Your task to perform on an android device: turn pop-ups off in chrome Image 0: 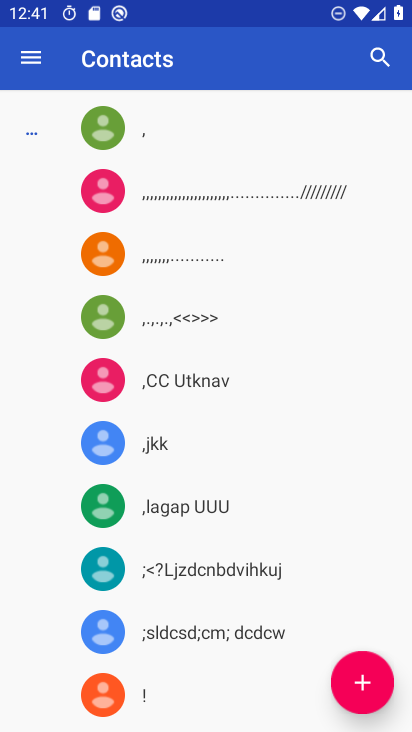
Step 0: press home button
Your task to perform on an android device: turn pop-ups off in chrome Image 1: 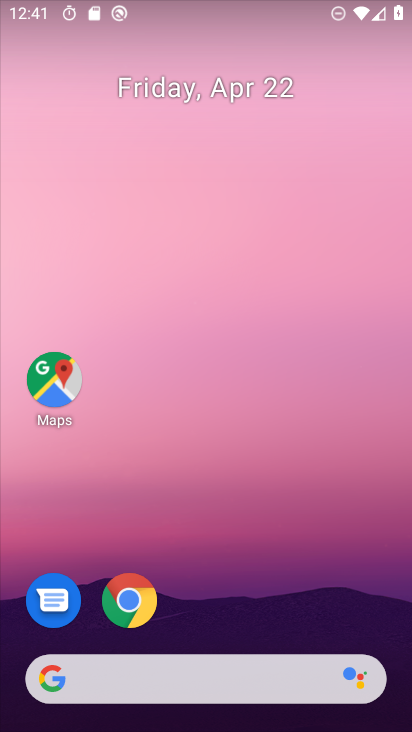
Step 1: click (129, 596)
Your task to perform on an android device: turn pop-ups off in chrome Image 2: 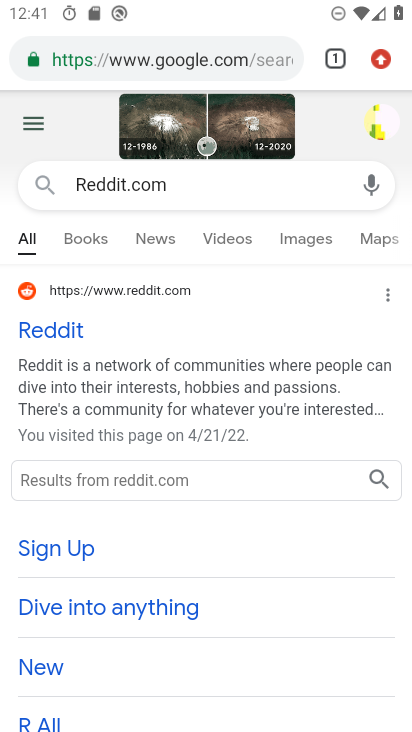
Step 2: click (385, 60)
Your task to perform on an android device: turn pop-ups off in chrome Image 3: 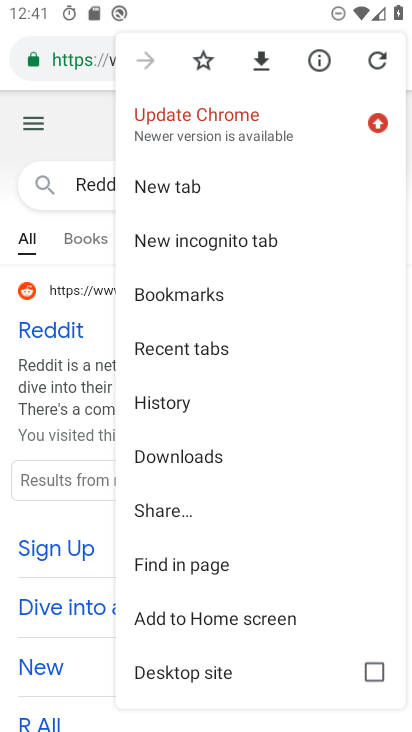
Step 3: drag from (234, 427) to (250, 313)
Your task to perform on an android device: turn pop-ups off in chrome Image 4: 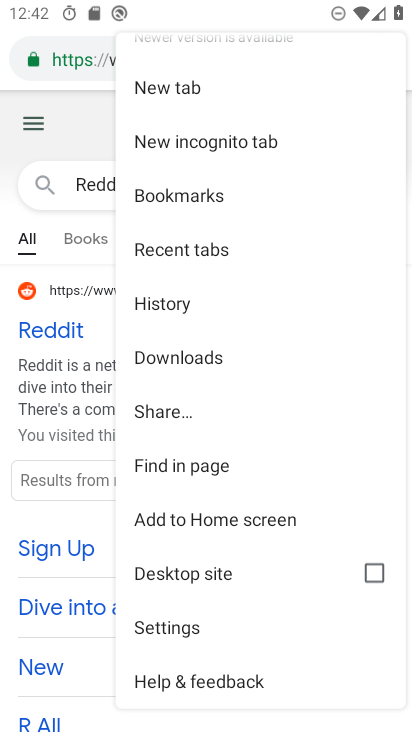
Step 4: drag from (248, 444) to (283, 357)
Your task to perform on an android device: turn pop-ups off in chrome Image 5: 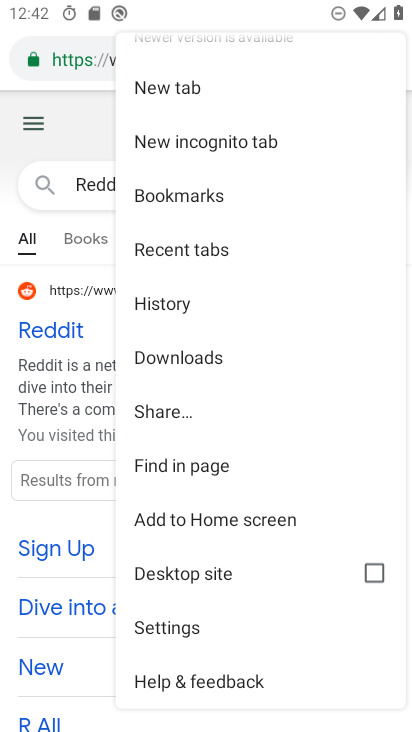
Step 5: click (179, 629)
Your task to perform on an android device: turn pop-ups off in chrome Image 6: 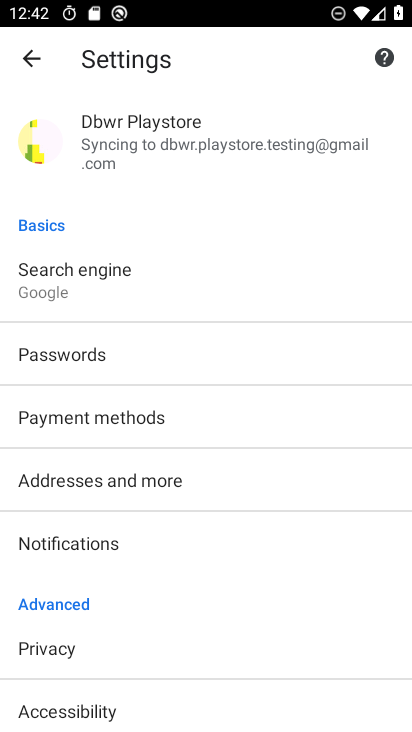
Step 6: drag from (176, 608) to (199, 463)
Your task to perform on an android device: turn pop-ups off in chrome Image 7: 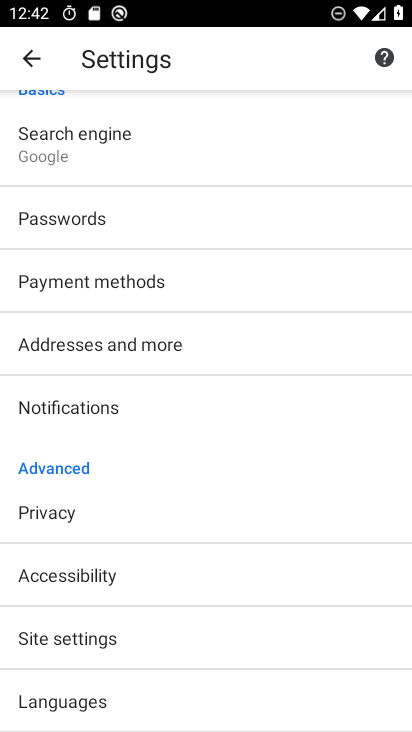
Step 7: drag from (151, 576) to (177, 480)
Your task to perform on an android device: turn pop-ups off in chrome Image 8: 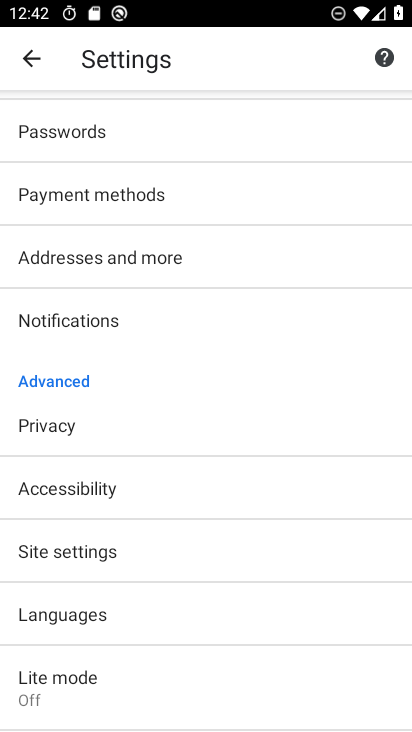
Step 8: drag from (159, 607) to (198, 495)
Your task to perform on an android device: turn pop-ups off in chrome Image 9: 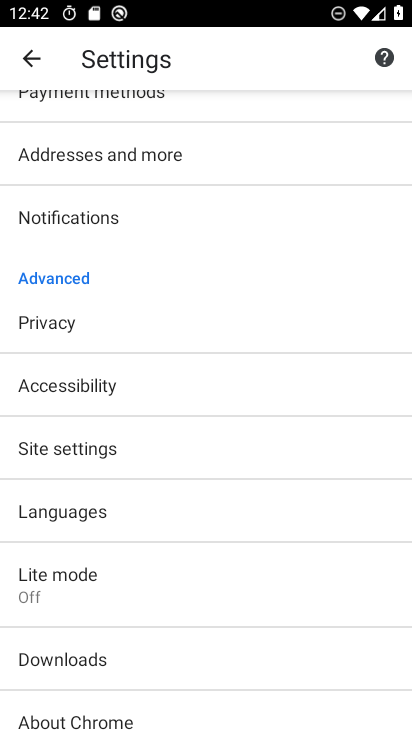
Step 9: click (92, 444)
Your task to perform on an android device: turn pop-ups off in chrome Image 10: 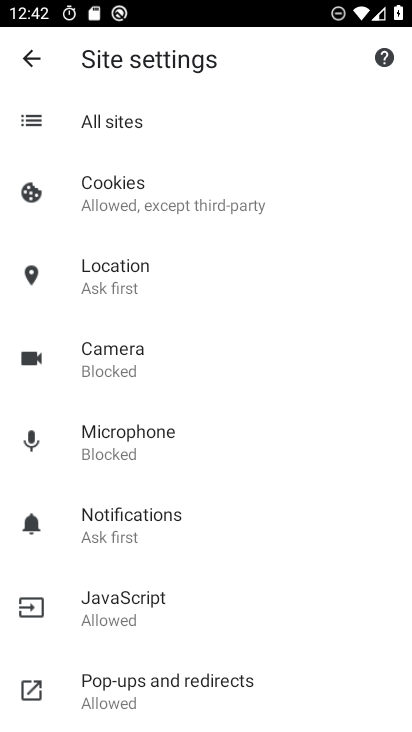
Step 10: drag from (151, 635) to (199, 535)
Your task to perform on an android device: turn pop-ups off in chrome Image 11: 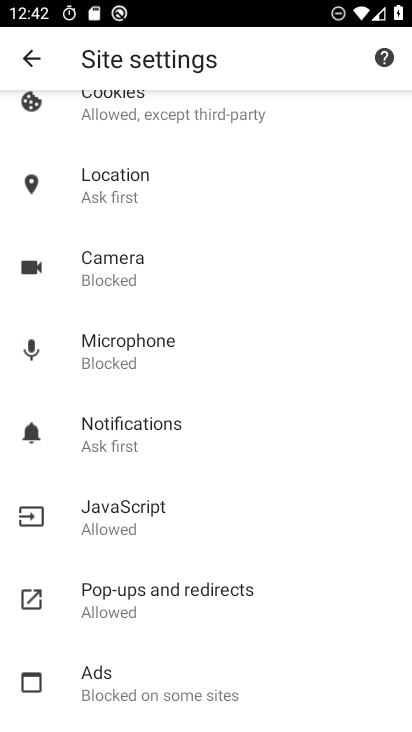
Step 11: click (212, 587)
Your task to perform on an android device: turn pop-ups off in chrome Image 12: 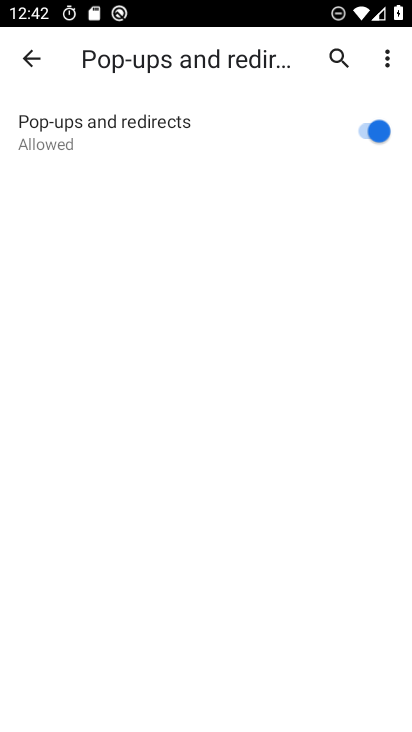
Step 12: click (380, 133)
Your task to perform on an android device: turn pop-ups off in chrome Image 13: 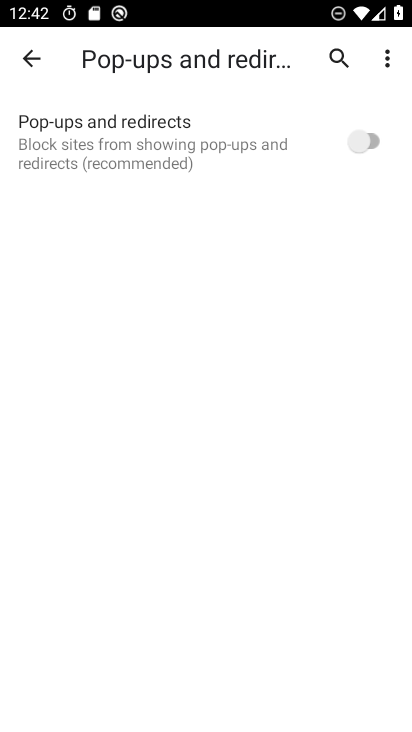
Step 13: task complete